Your task to perform on an android device: toggle translation in the chrome app Image 0: 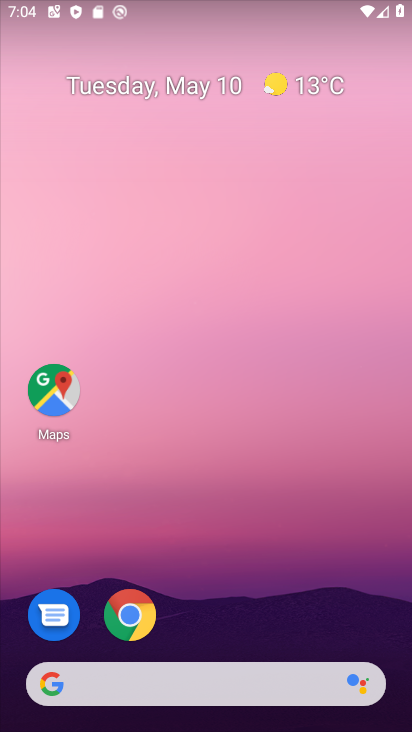
Step 0: drag from (291, 598) to (170, 147)
Your task to perform on an android device: toggle translation in the chrome app Image 1: 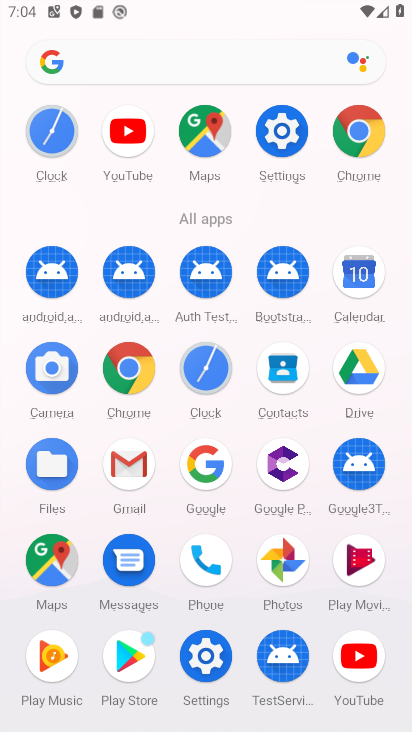
Step 1: click (371, 129)
Your task to perform on an android device: toggle translation in the chrome app Image 2: 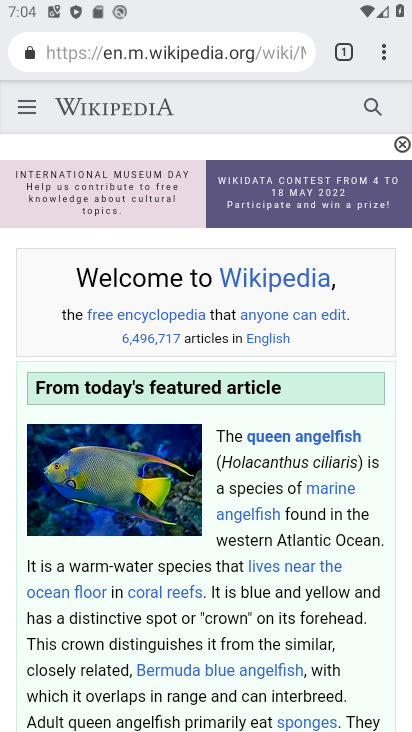
Step 2: drag from (378, 48) to (209, 626)
Your task to perform on an android device: toggle translation in the chrome app Image 3: 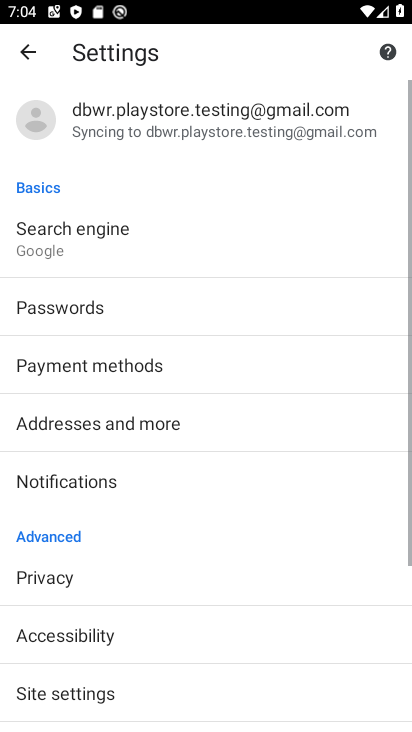
Step 3: drag from (211, 639) to (271, 150)
Your task to perform on an android device: toggle translation in the chrome app Image 4: 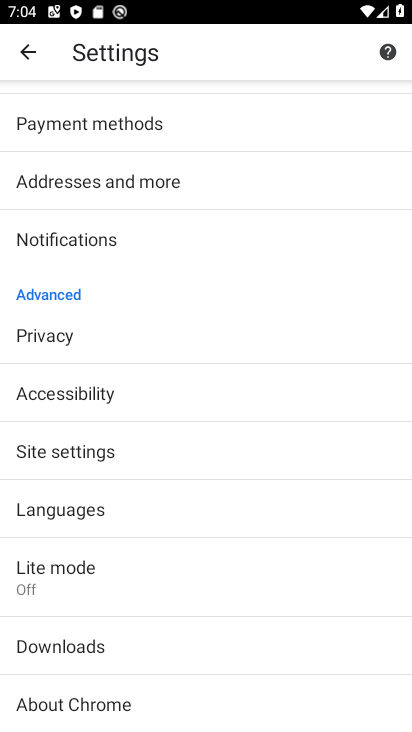
Step 4: drag from (148, 614) to (163, 198)
Your task to perform on an android device: toggle translation in the chrome app Image 5: 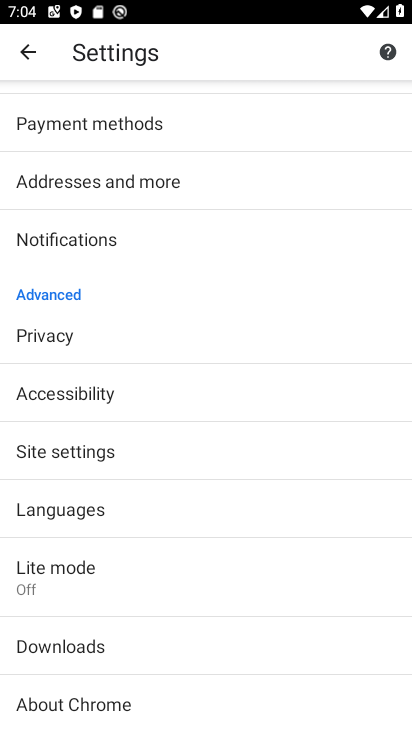
Step 5: drag from (73, 648) to (111, 235)
Your task to perform on an android device: toggle translation in the chrome app Image 6: 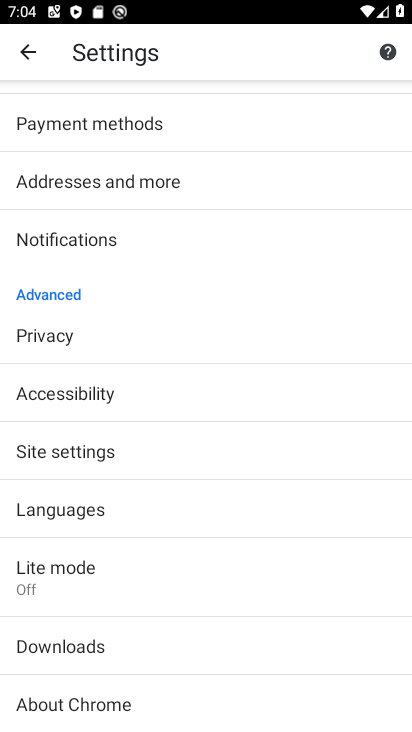
Step 6: click (55, 494)
Your task to perform on an android device: toggle translation in the chrome app Image 7: 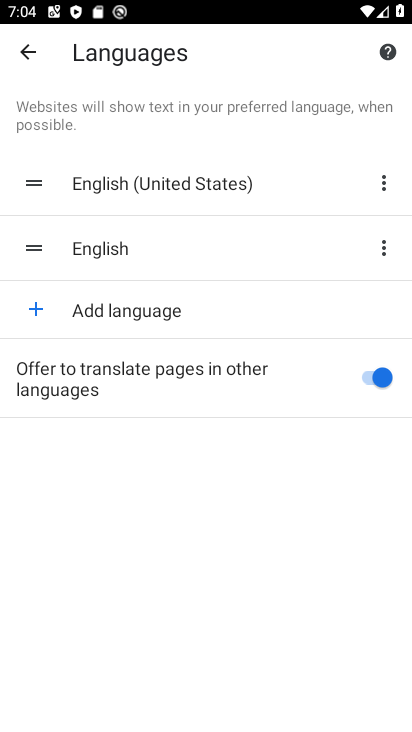
Step 7: click (368, 371)
Your task to perform on an android device: toggle translation in the chrome app Image 8: 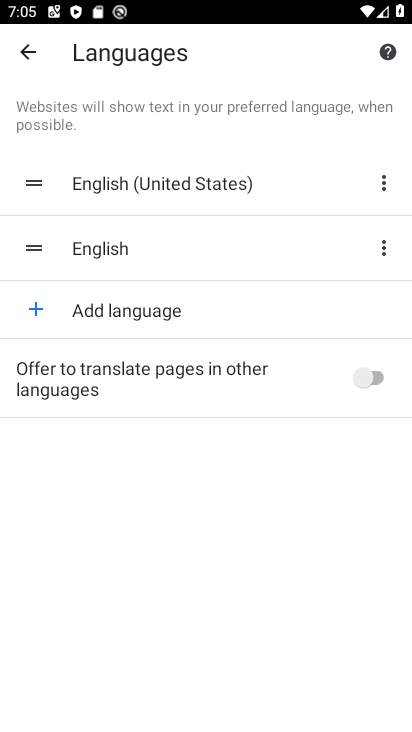
Step 8: task complete